Your task to perform on an android device: find which apps use the phone's location Image 0: 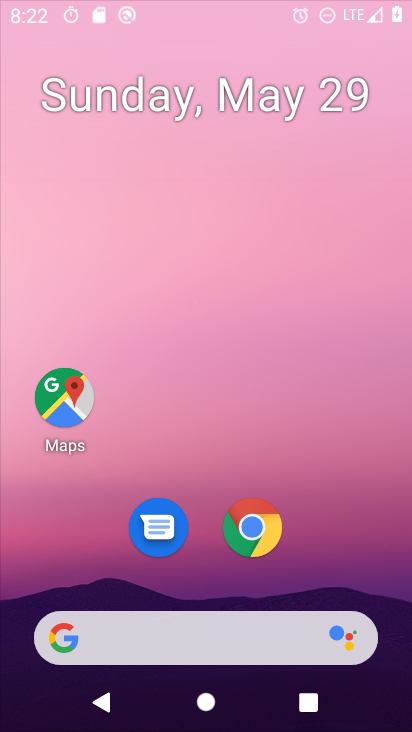
Step 0: drag from (392, 609) to (279, 76)
Your task to perform on an android device: find which apps use the phone's location Image 1: 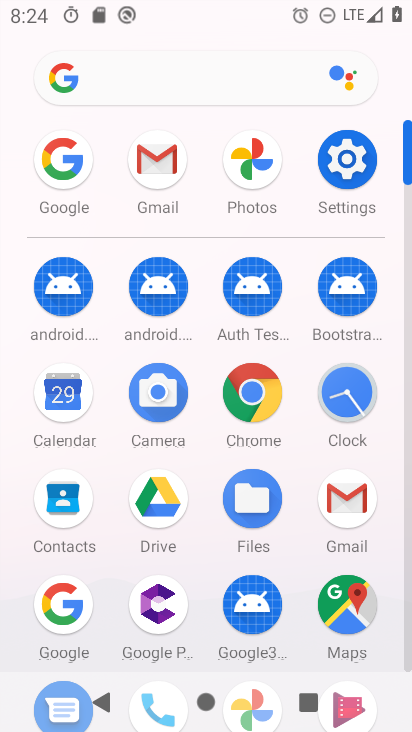
Step 1: click (332, 173)
Your task to perform on an android device: find which apps use the phone's location Image 2: 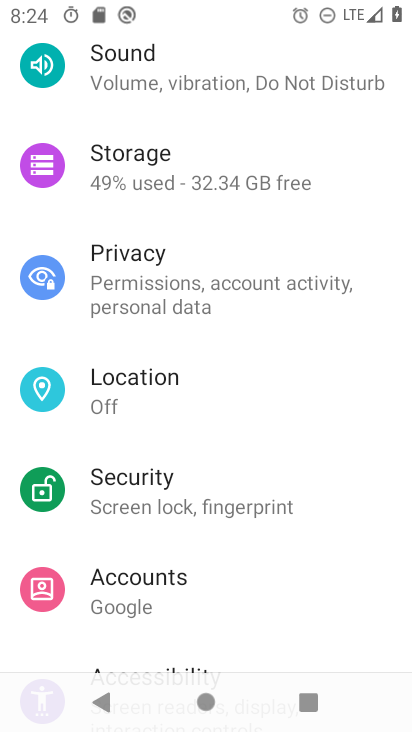
Step 2: click (199, 396)
Your task to perform on an android device: find which apps use the phone's location Image 3: 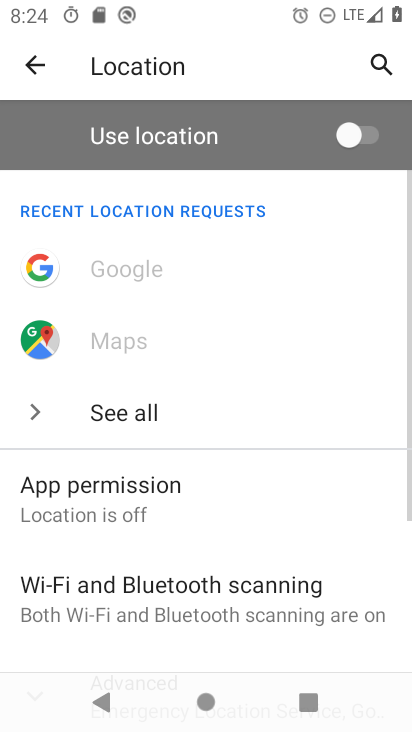
Step 3: click (170, 485)
Your task to perform on an android device: find which apps use the phone's location Image 4: 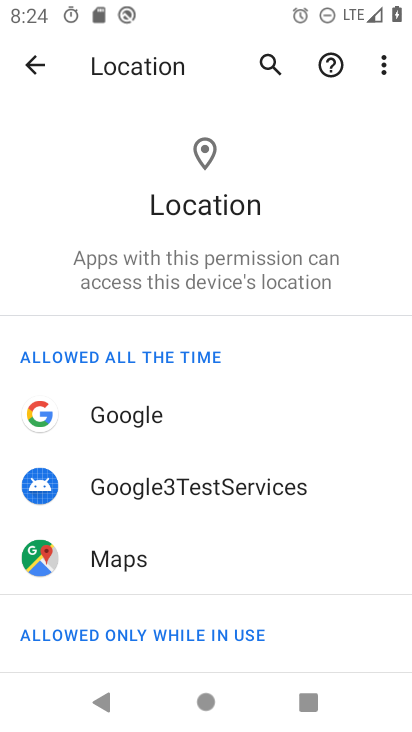
Step 4: drag from (175, 594) to (236, 171)
Your task to perform on an android device: find which apps use the phone's location Image 5: 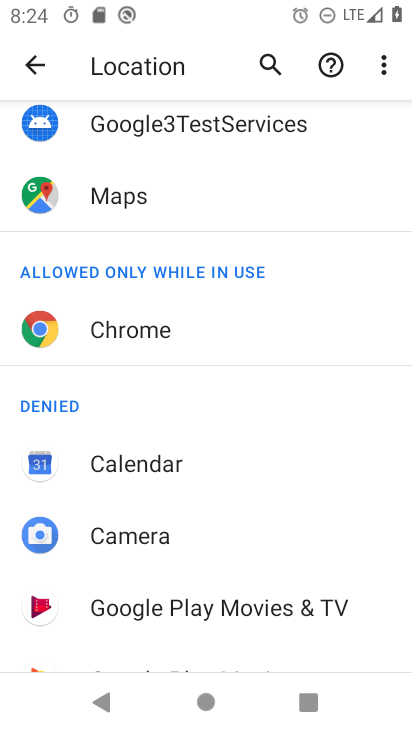
Step 5: drag from (153, 567) to (203, 148)
Your task to perform on an android device: find which apps use the phone's location Image 6: 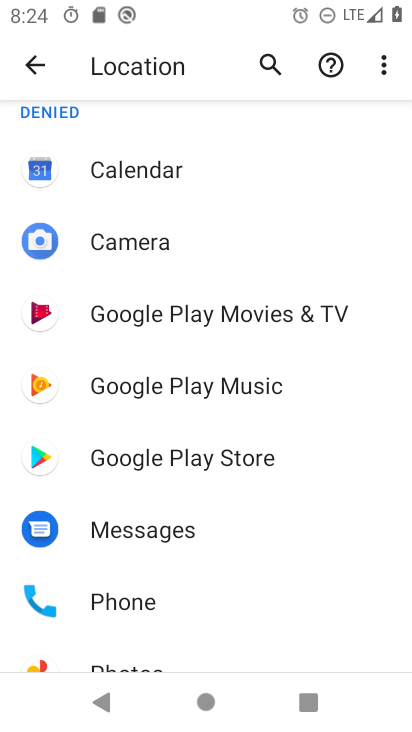
Step 6: click (129, 596)
Your task to perform on an android device: find which apps use the phone's location Image 7: 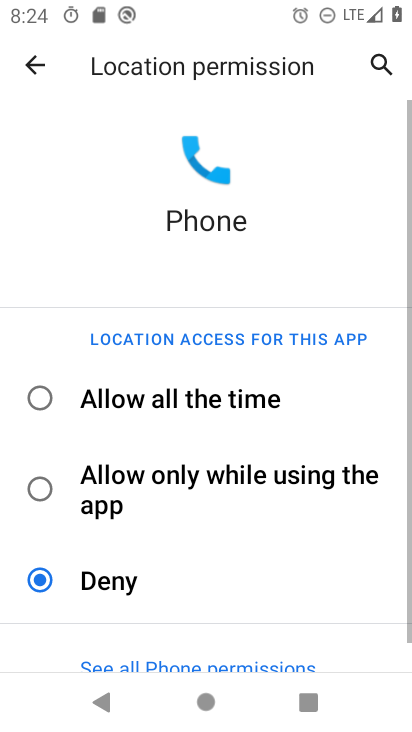
Step 7: task complete